Your task to perform on an android device: find photos in the google photos app Image 0: 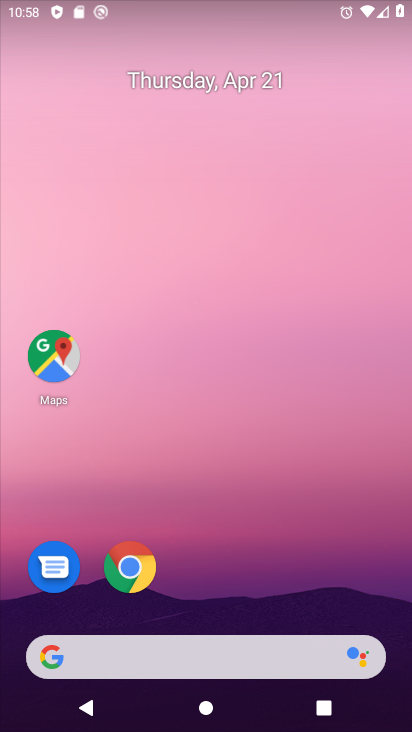
Step 0: drag from (212, 545) to (269, 188)
Your task to perform on an android device: find photos in the google photos app Image 1: 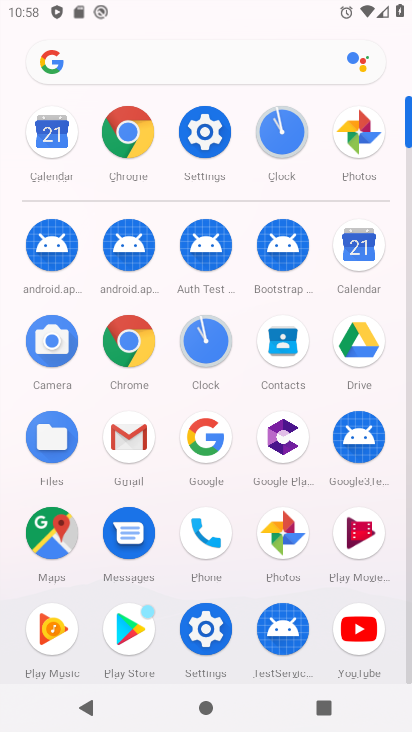
Step 1: click (271, 544)
Your task to perform on an android device: find photos in the google photos app Image 2: 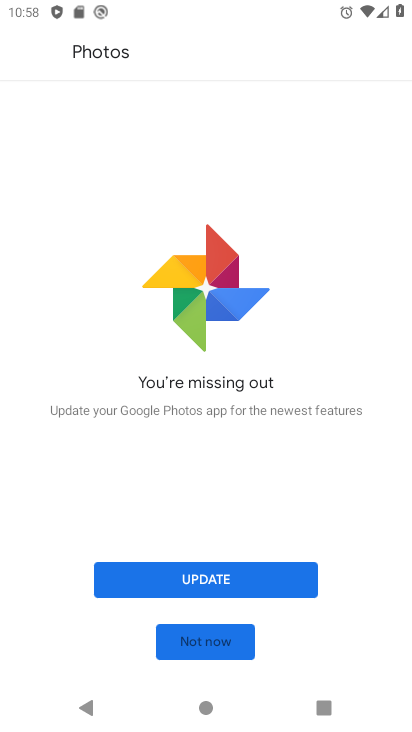
Step 2: click (219, 633)
Your task to perform on an android device: find photos in the google photos app Image 3: 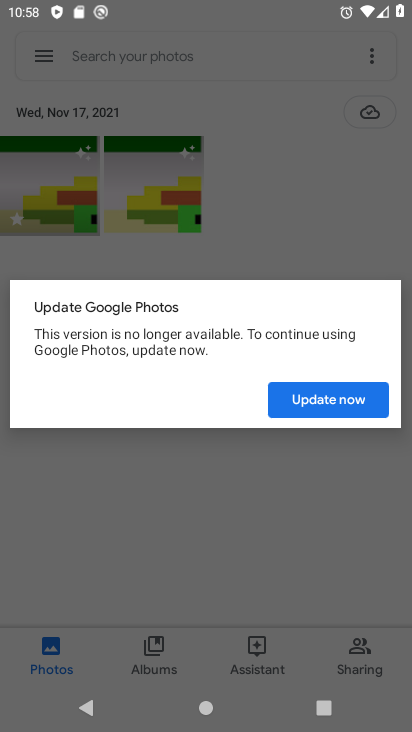
Step 3: click (330, 394)
Your task to perform on an android device: find photos in the google photos app Image 4: 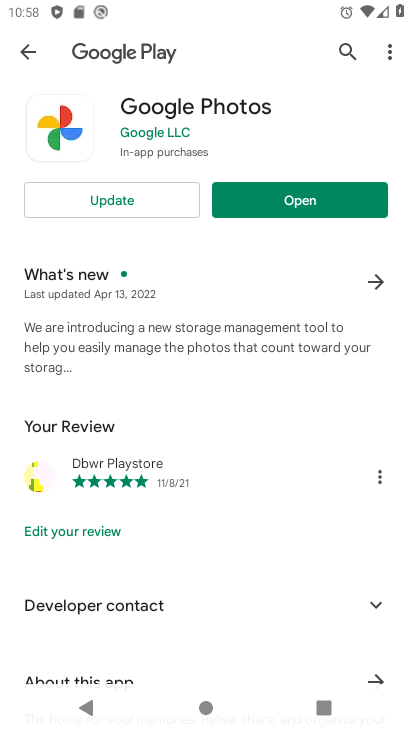
Step 4: click (269, 210)
Your task to perform on an android device: find photos in the google photos app Image 5: 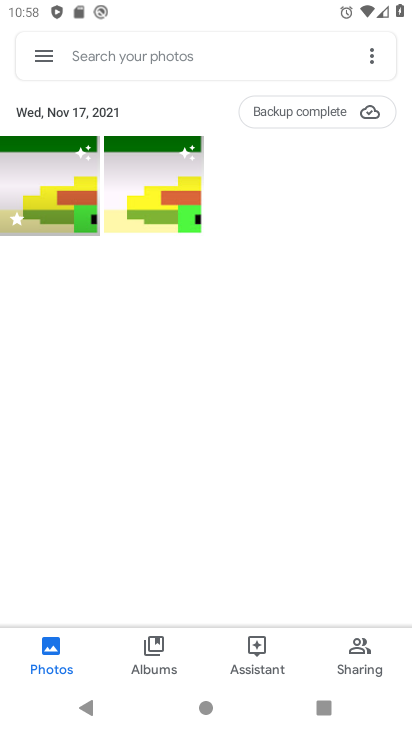
Step 5: task complete